Your task to perform on an android device: Open sound settings Image 0: 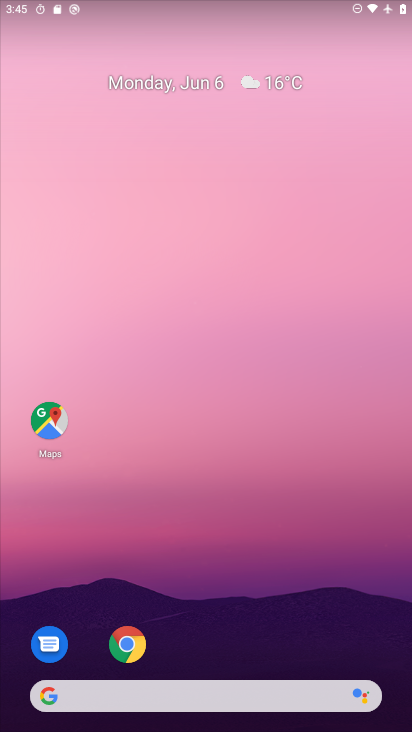
Step 0: drag from (251, 618) to (195, 62)
Your task to perform on an android device: Open sound settings Image 1: 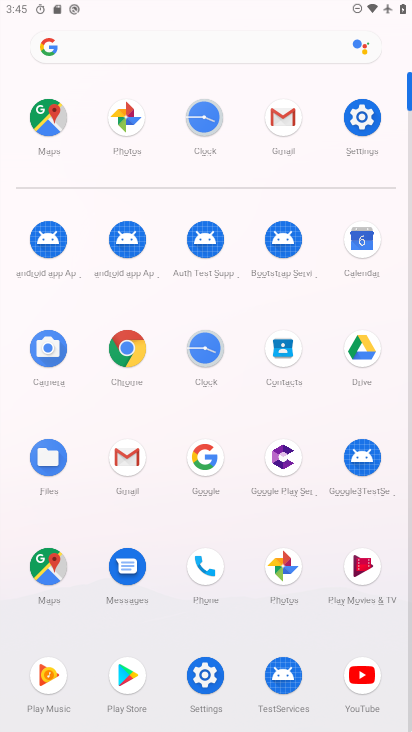
Step 1: click (359, 116)
Your task to perform on an android device: Open sound settings Image 2: 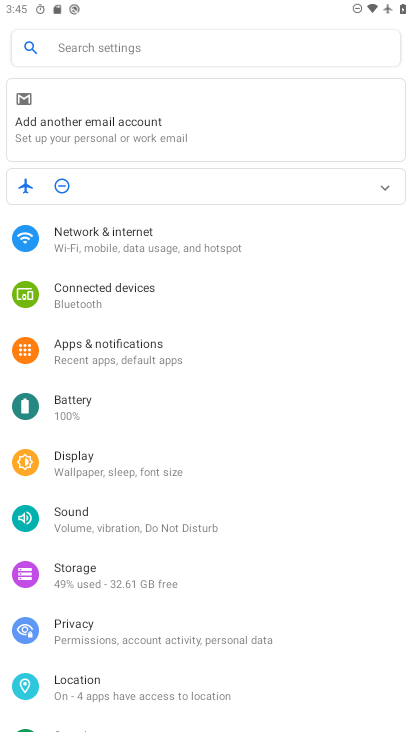
Step 2: click (57, 512)
Your task to perform on an android device: Open sound settings Image 3: 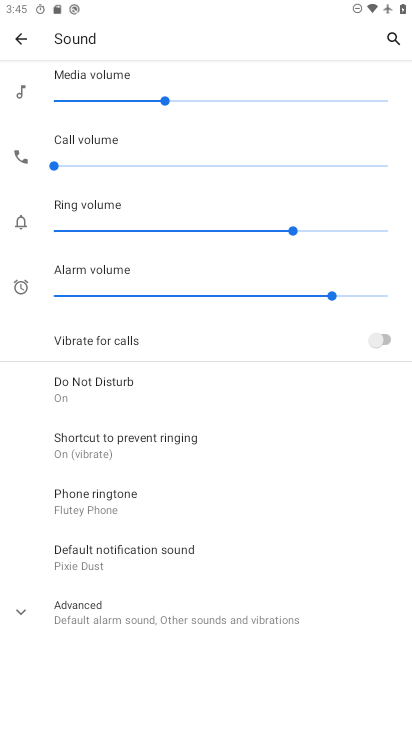
Step 3: task complete